Your task to perform on an android device: turn off notifications settings in the gmail app Image 0: 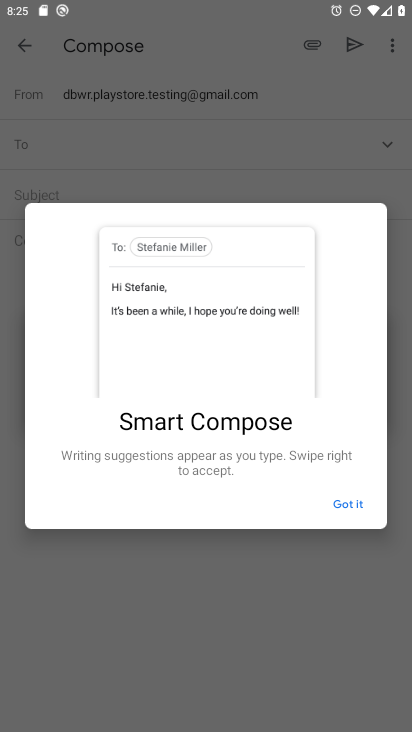
Step 0: press home button
Your task to perform on an android device: turn off notifications settings in the gmail app Image 1: 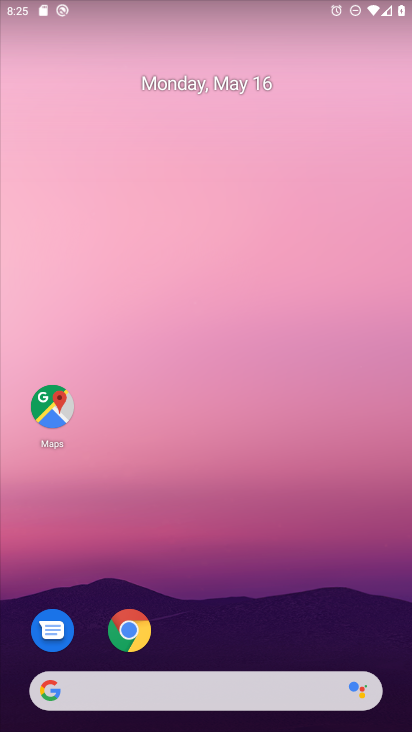
Step 1: drag from (309, 551) to (245, 233)
Your task to perform on an android device: turn off notifications settings in the gmail app Image 2: 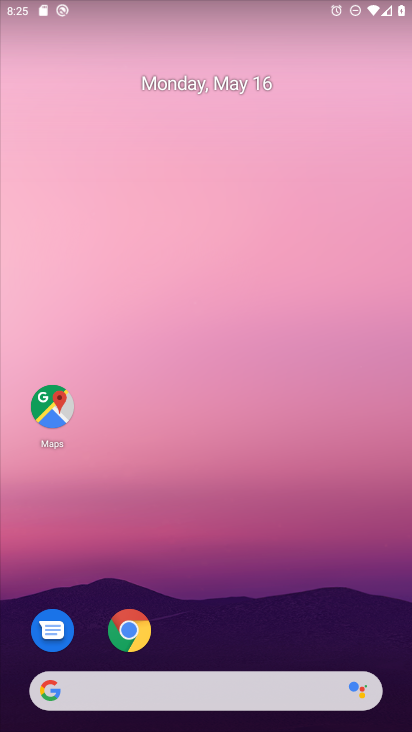
Step 2: drag from (256, 629) to (304, 89)
Your task to perform on an android device: turn off notifications settings in the gmail app Image 3: 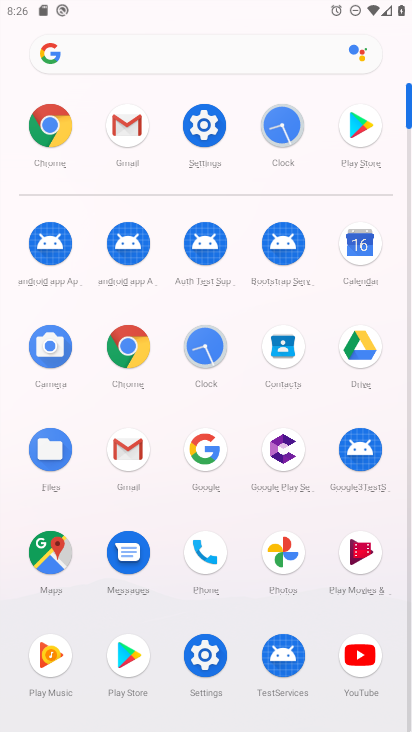
Step 3: click (122, 460)
Your task to perform on an android device: turn off notifications settings in the gmail app Image 4: 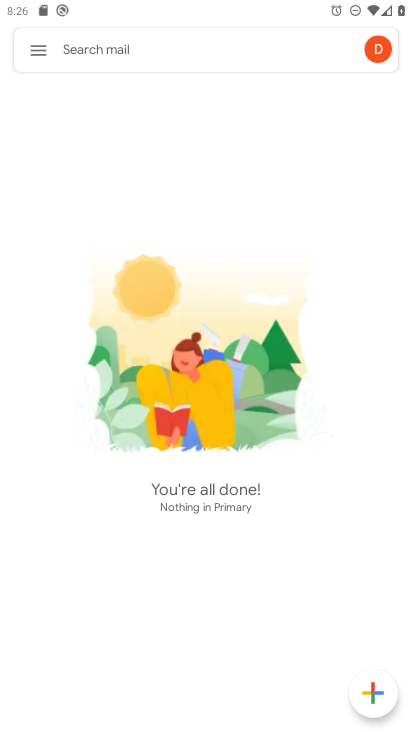
Step 4: click (35, 53)
Your task to perform on an android device: turn off notifications settings in the gmail app Image 5: 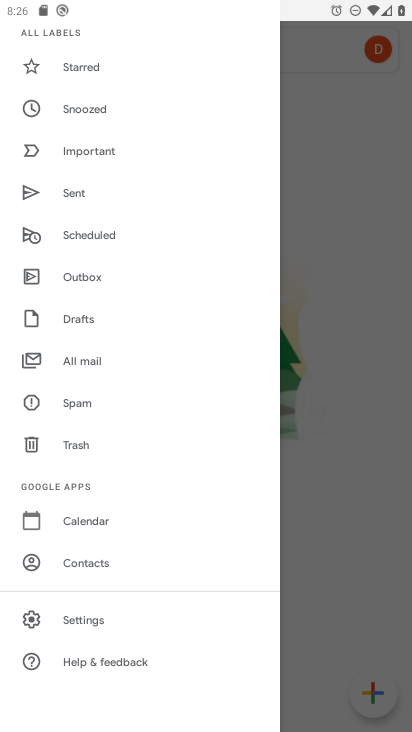
Step 5: drag from (132, 472) to (173, 160)
Your task to perform on an android device: turn off notifications settings in the gmail app Image 6: 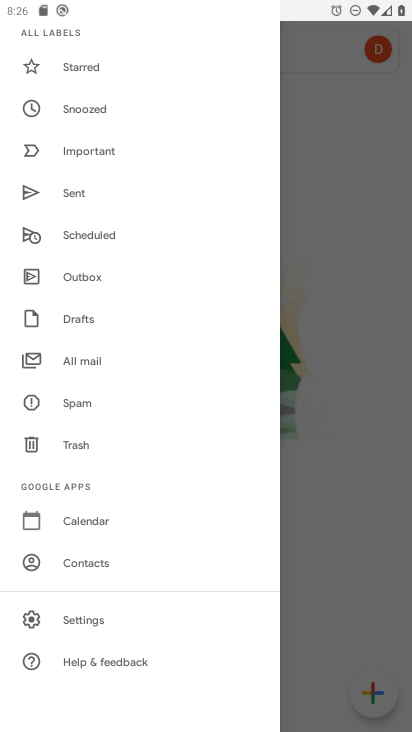
Step 6: click (90, 617)
Your task to perform on an android device: turn off notifications settings in the gmail app Image 7: 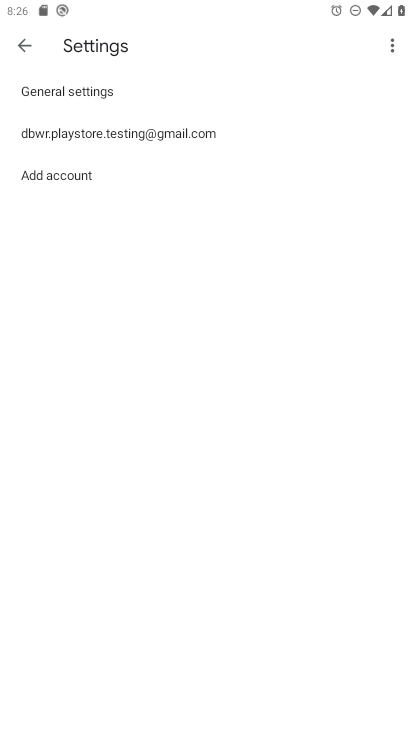
Step 7: task complete